Your task to perform on an android device: Open Youtube and go to "Your channel" Image 0: 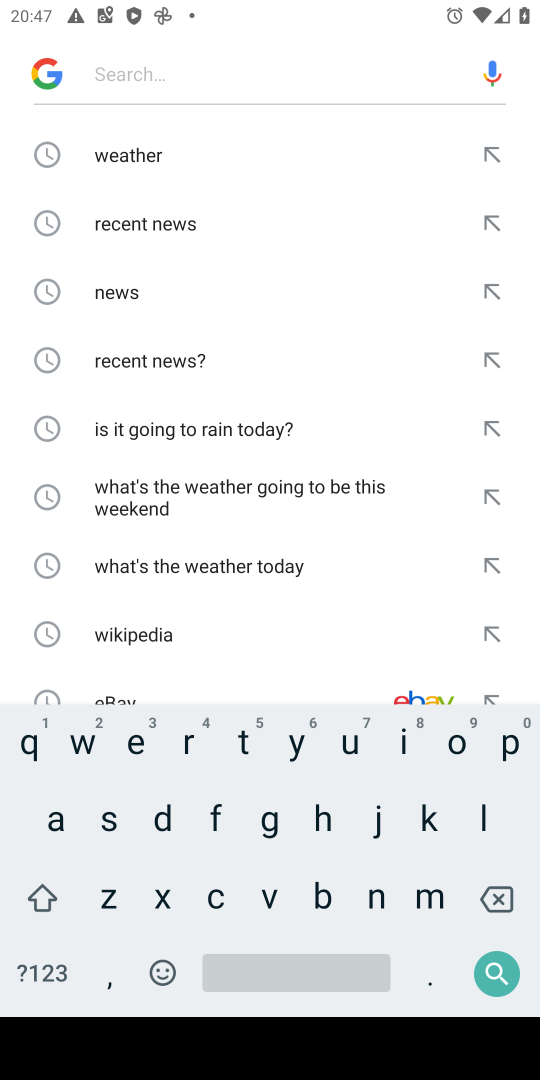
Step 0: press home button
Your task to perform on an android device: Open Youtube and go to "Your channel" Image 1: 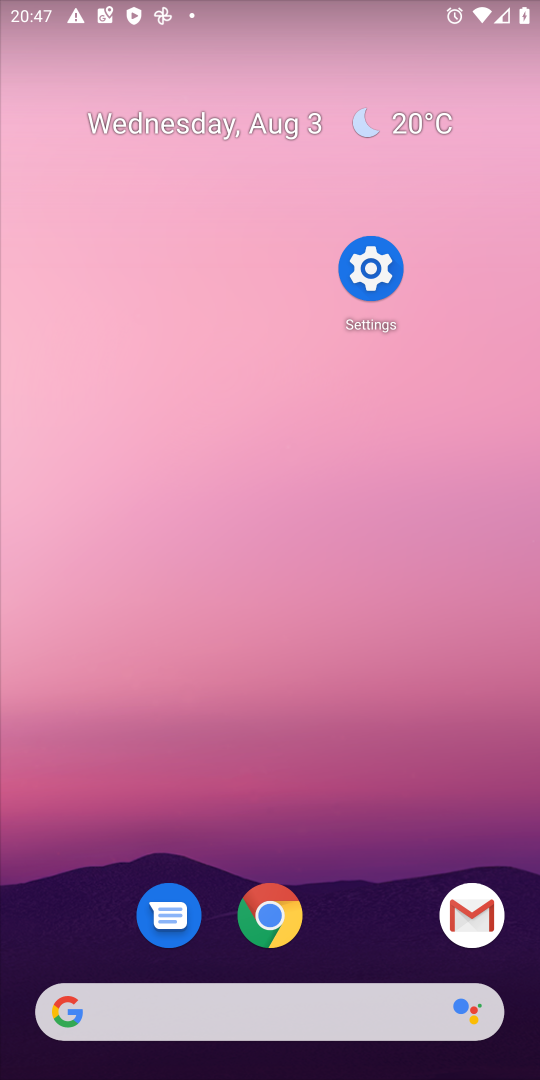
Step 1: drag from (311, 1065) to (258, 421)
Your task to perform on an android device: Open Youtube and go to "Your channel" Image 2: 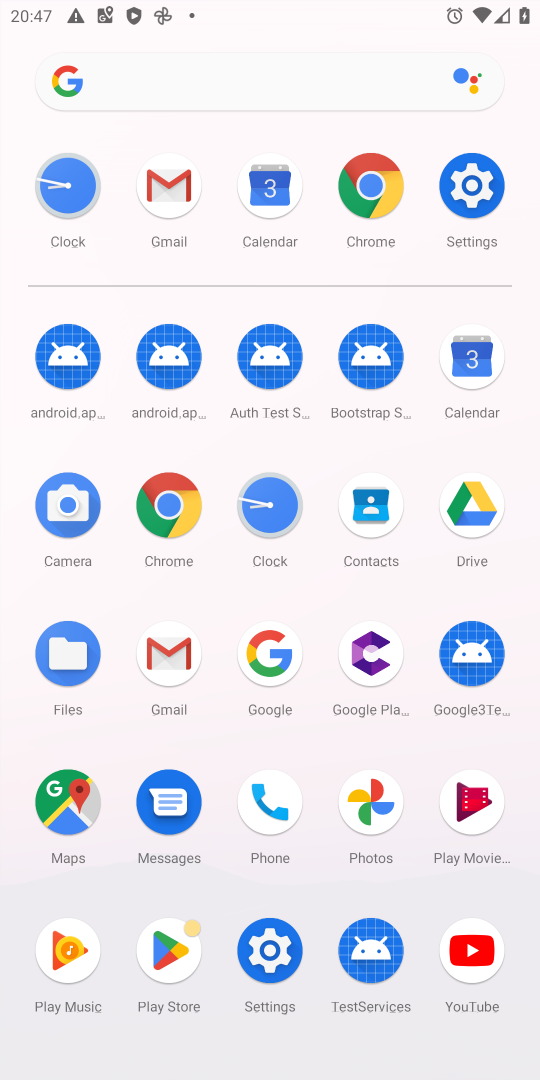
Step 2: click (485, 938)
Your task to perform on an android device: Open Youtube and go to "Your channel" Image 3: 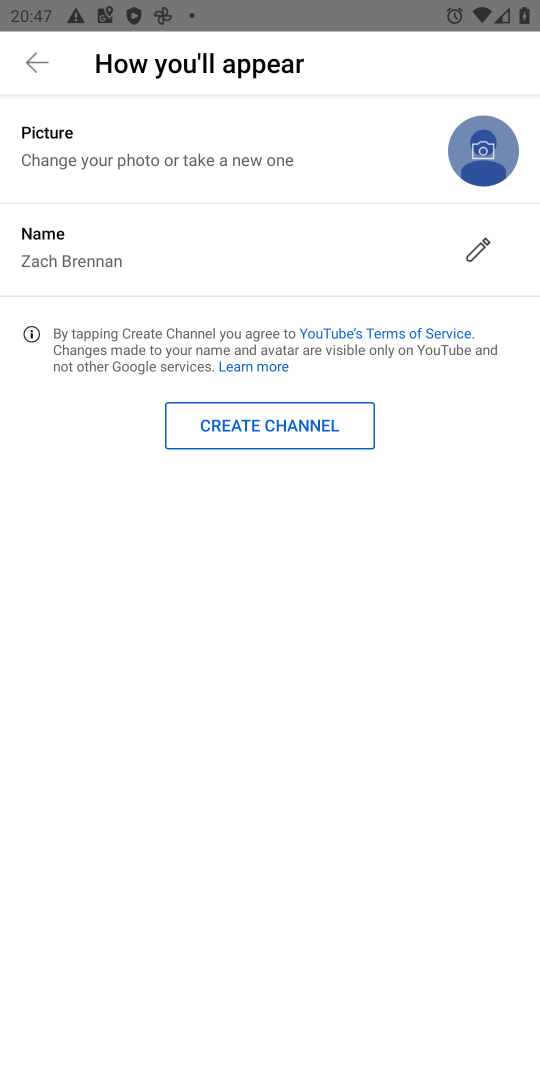
Step 3: task complete